Your task to perform on an android device: find snoozed emails in the gmail app Image 0: 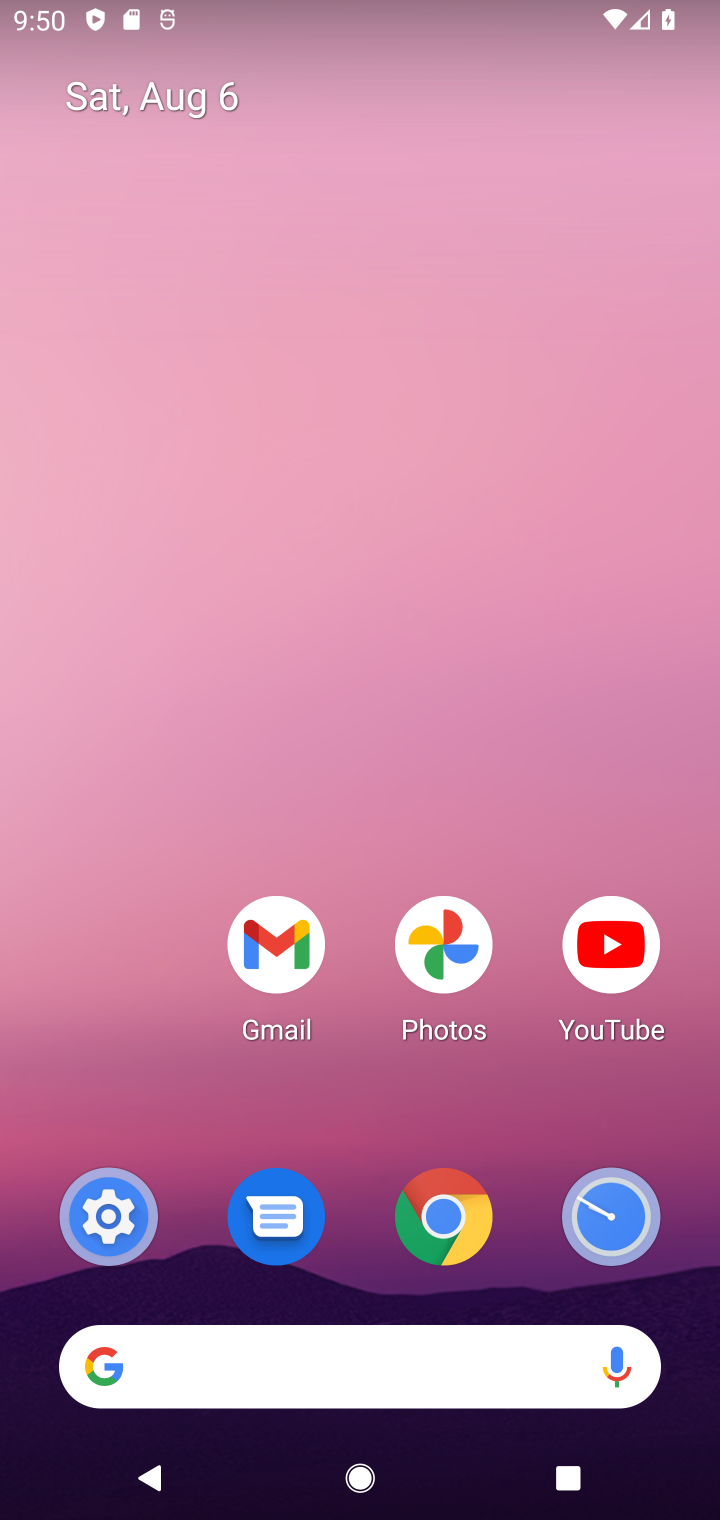
Step 0: click (261, 944)
Your task to perform on an android device: find snoozed emails in the gmail app Image 1: 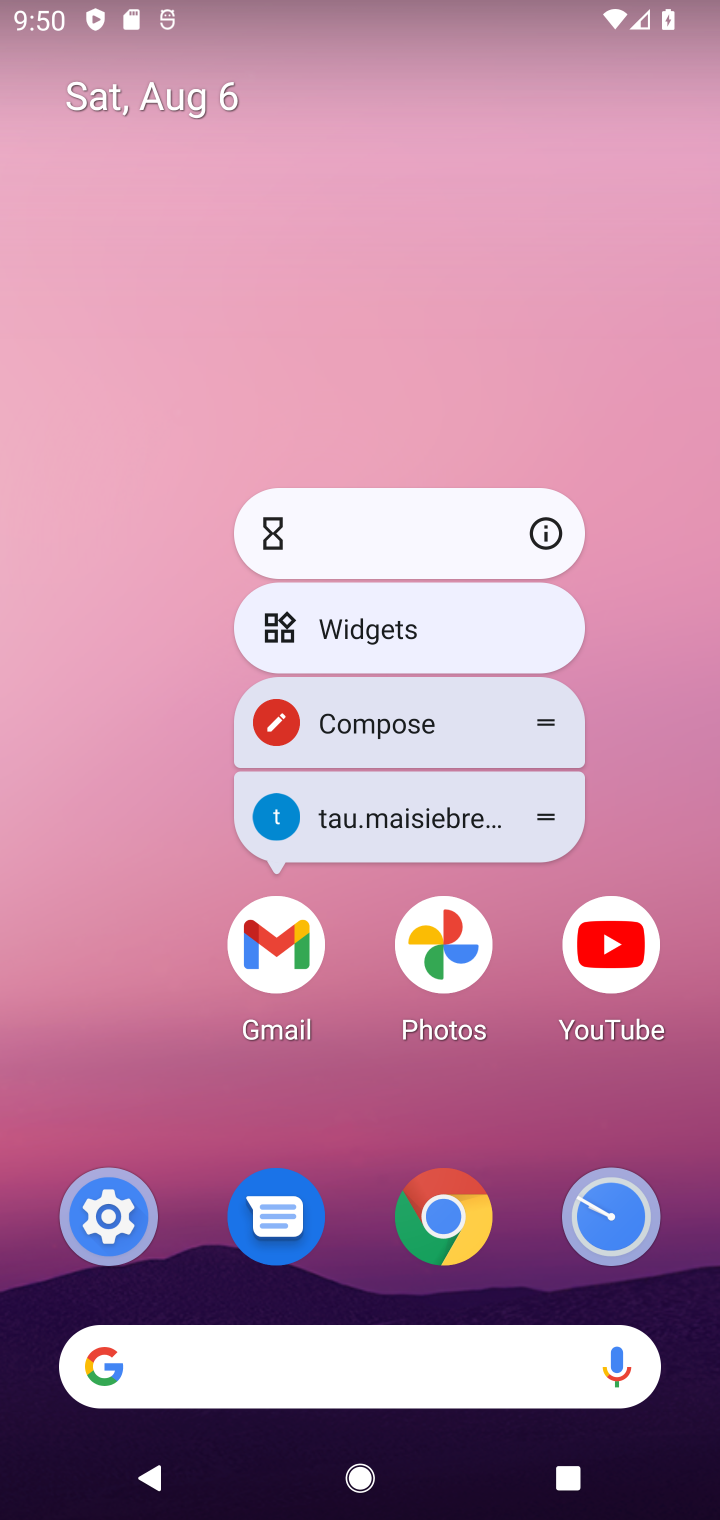
Step 1: click (261, 944)
Your task to perform on an android device: find snoozed emails in the gmail app Image 2: 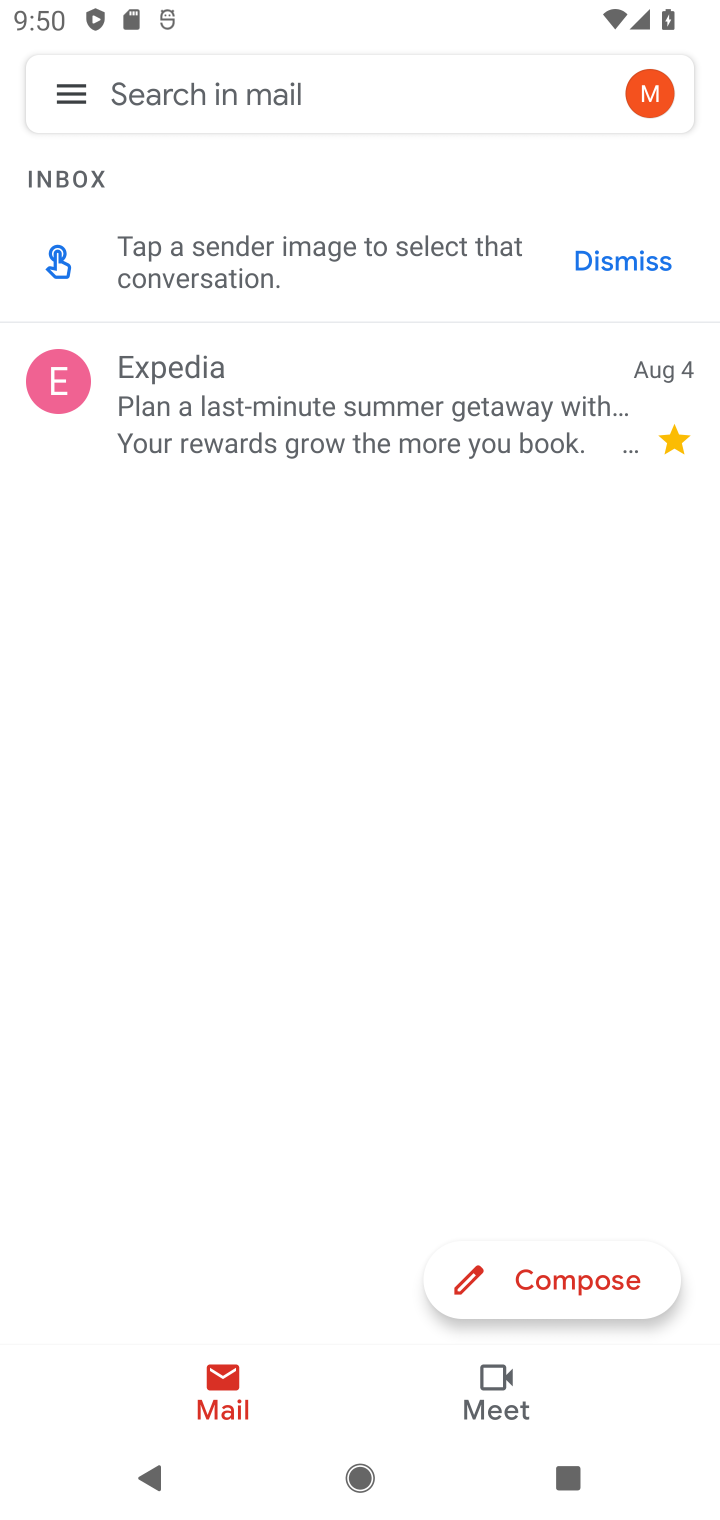
Step 2: click (70, 106)
Your task to perform on an android device: find snoozed emails in the gmail app Image 3: 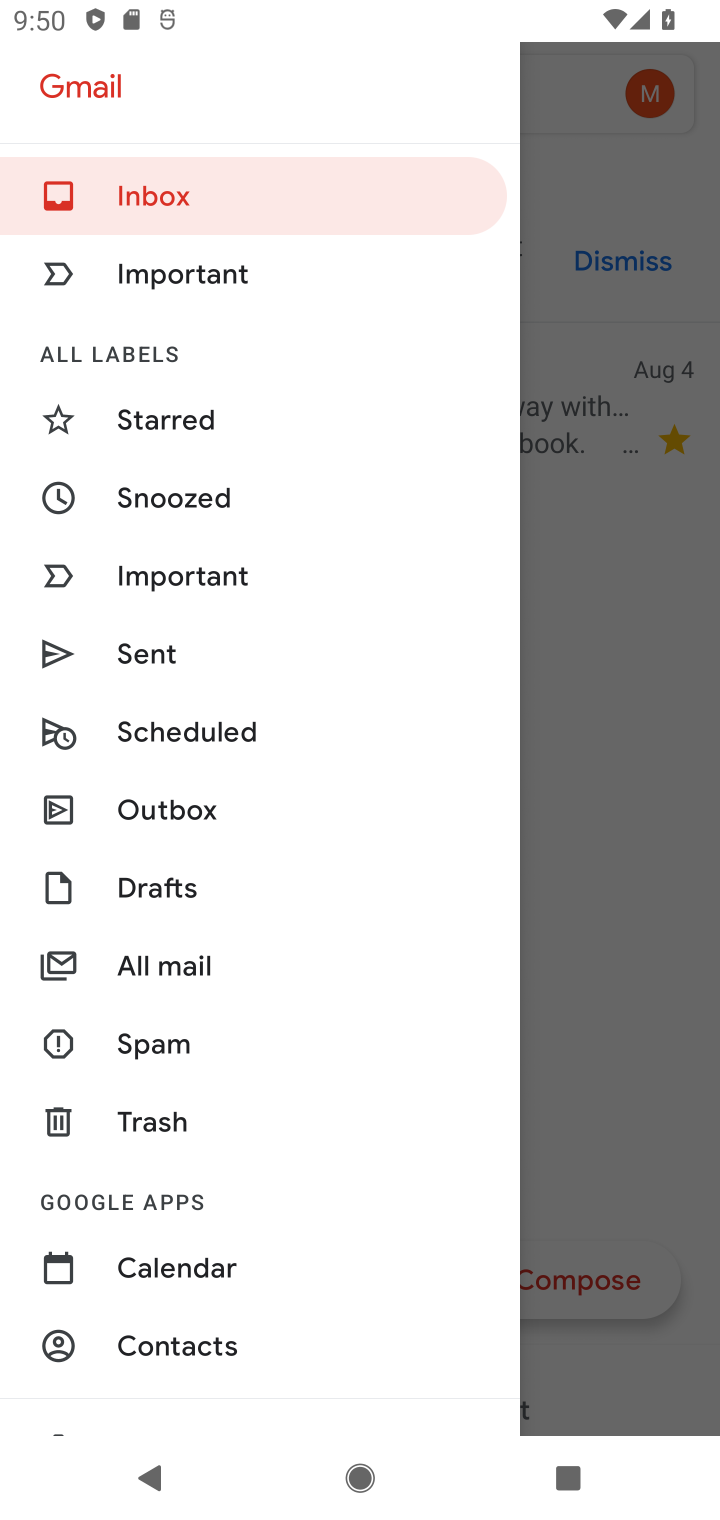
Step 3: click (146, 475)
Your task to perform on an android device: find snoozed emails in the gmail app Image 4: 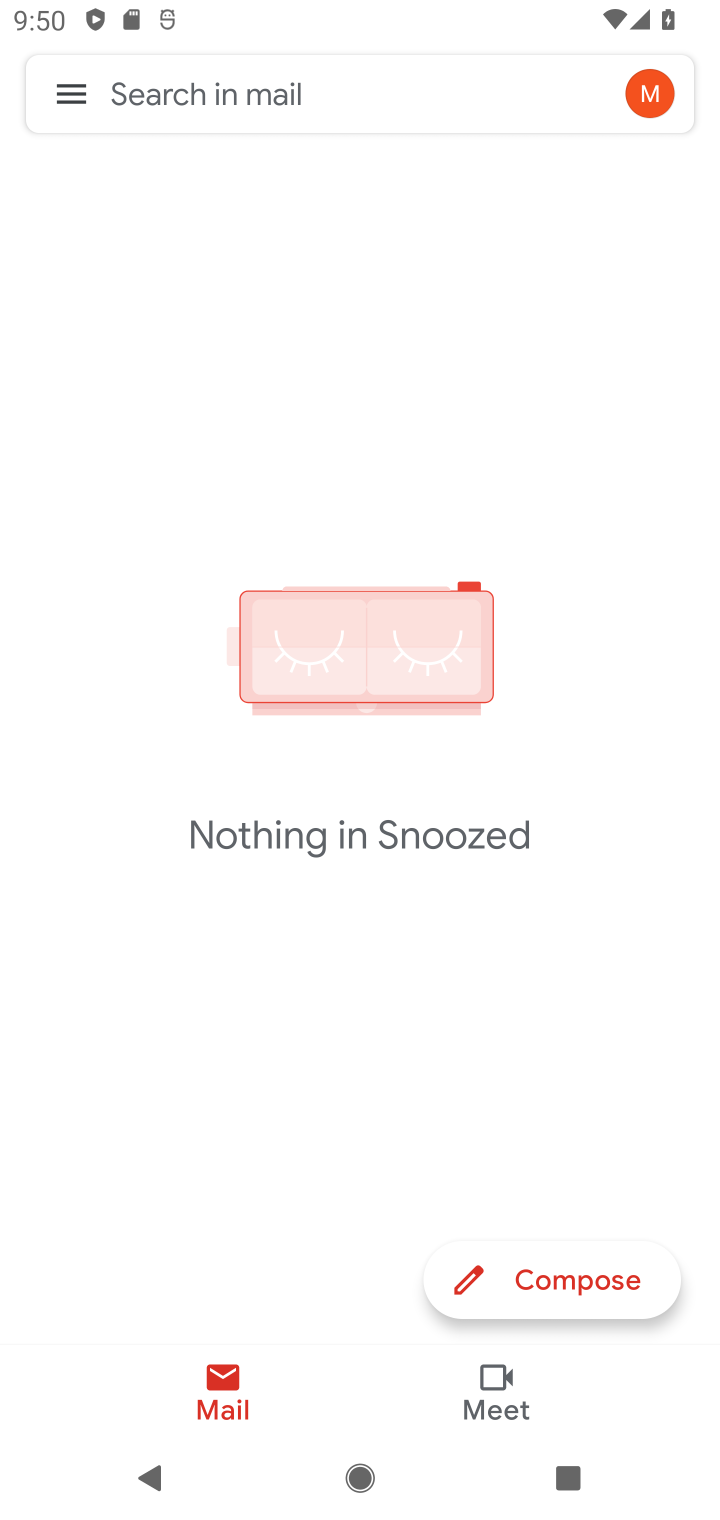
Step 4: task complete